Your task to perform on an android device: add a contact in the contacts app Image 0: 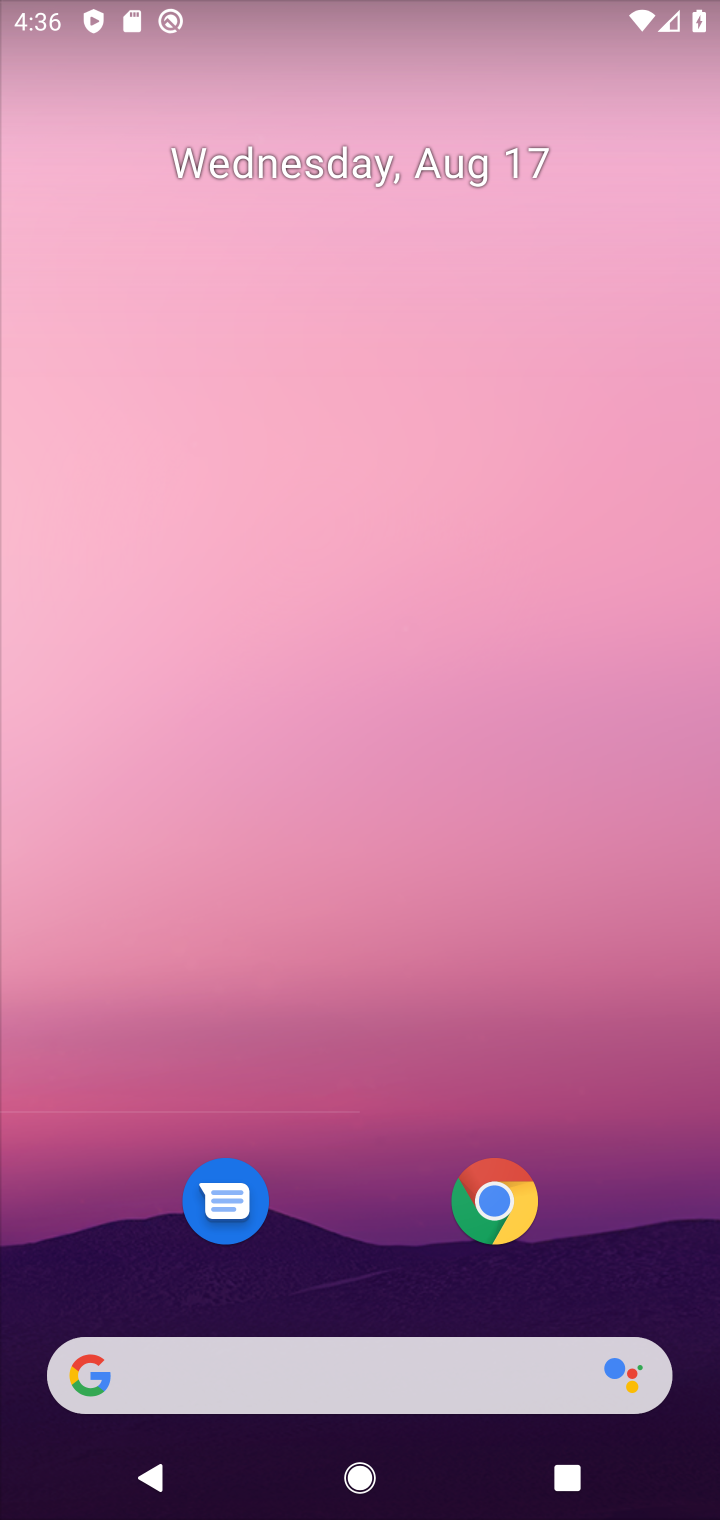
Step 0: task complete